Your task to perform on an android device: Turn on the flashlight Image 0: 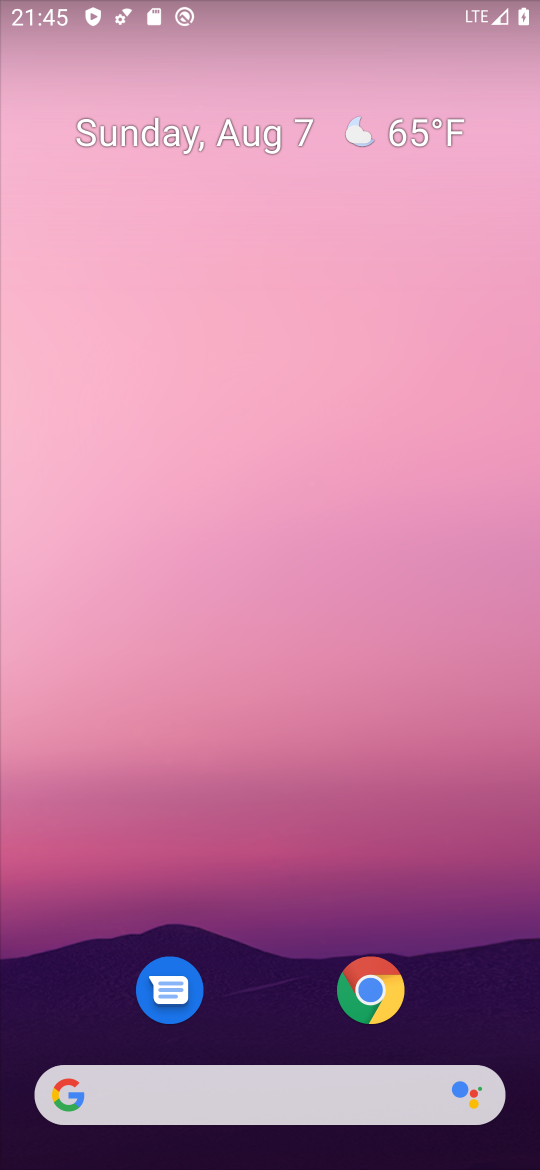
Step 0: press home button
Your task to perform on an android device: Turn on the flashlight Image 1: 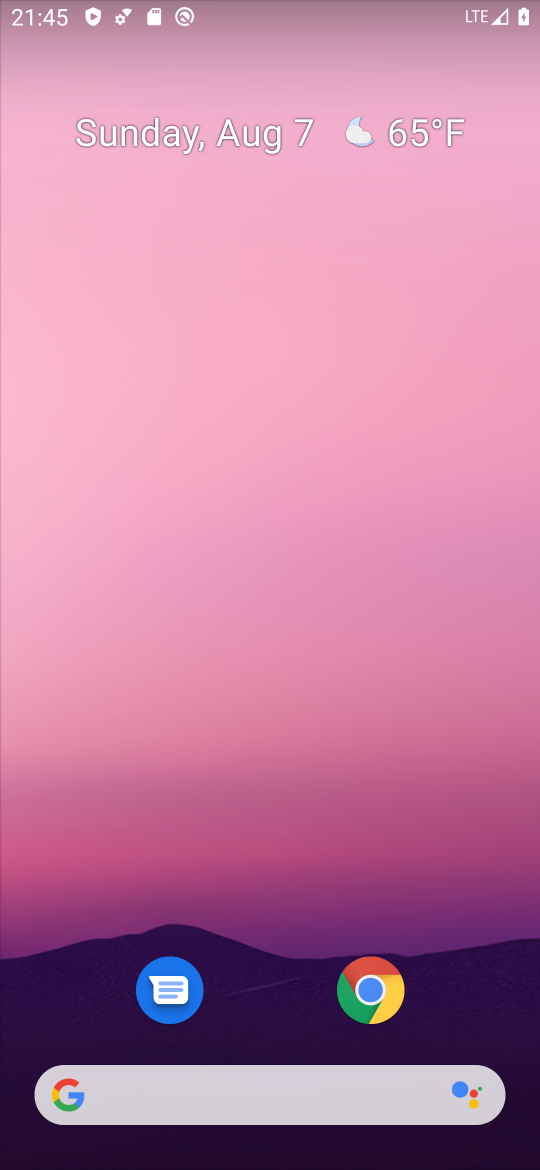
Step 1: drag from (269, 911) to (289, 1)
Your task to perform on an android device: Turn on the flashlight Image 2: 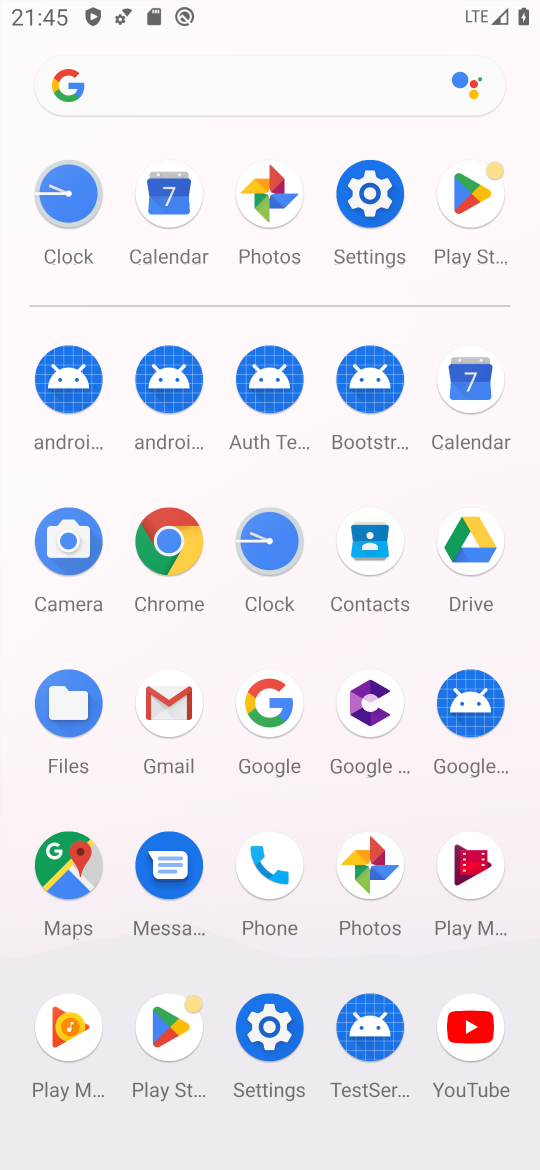
Step 2: click (378, 187)
Your task to perform on an android device: Turn on the flashlight Image 3: 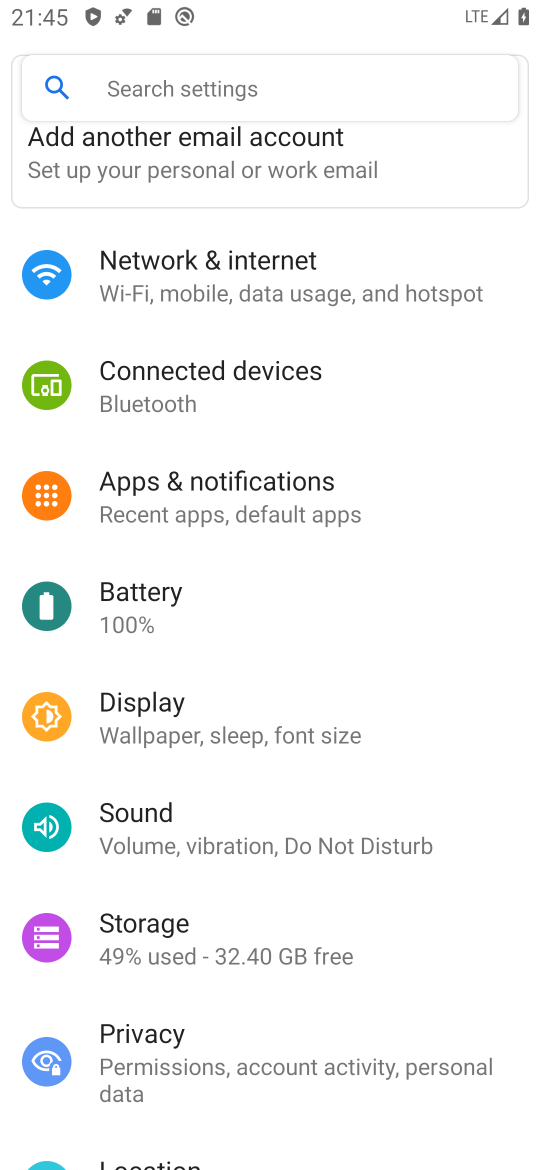
Step 3: click (359, 87)
Your task to perform on an android device: Turn on the flashlight Image 4: 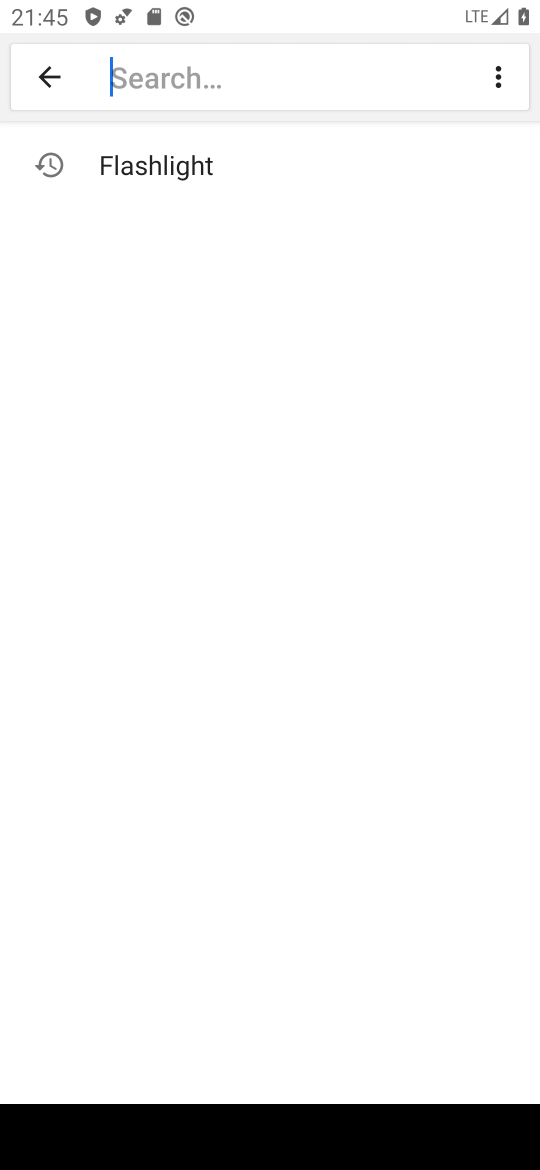
Step 4: type "Flas"
Your task to perform on an android device: Turn on the flashlight Image 5: 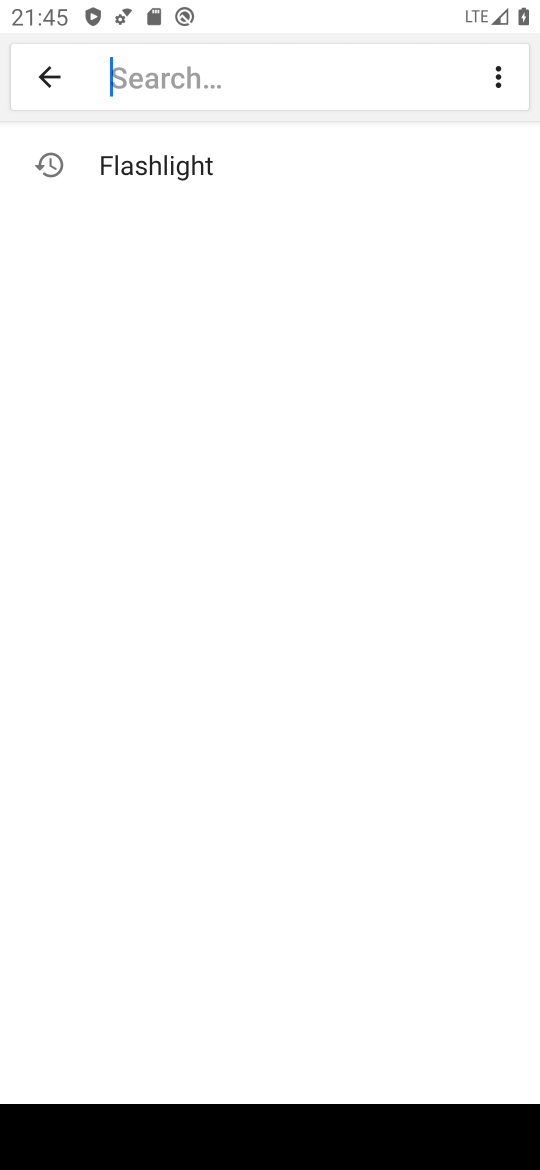
Step 5: click (198, 166)
Your task to perform on an android device: Turn on the flashlight Image 6: 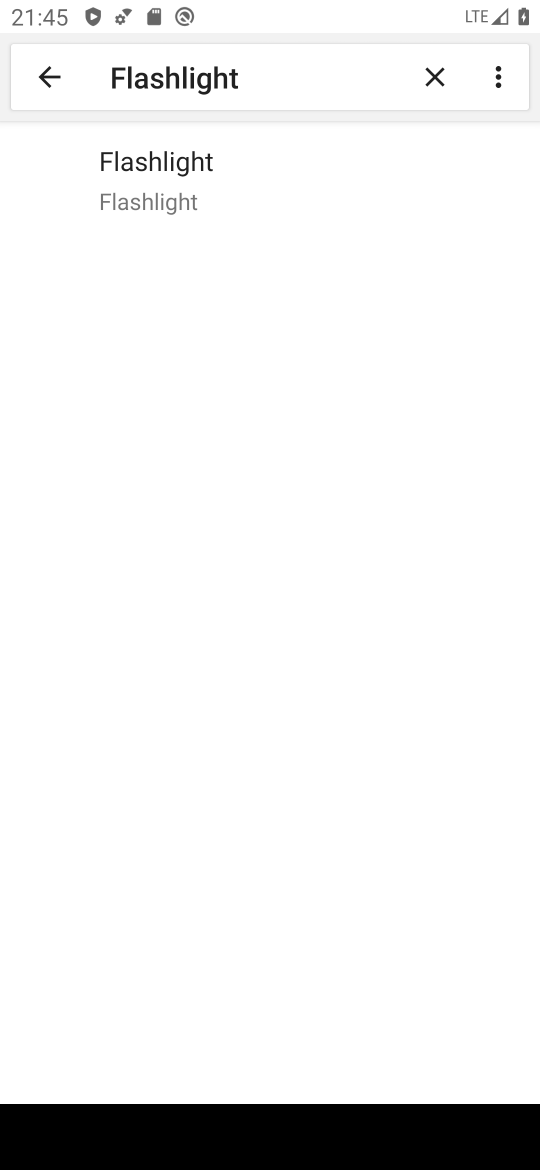
Step 6: click (200, 168)
Your task to perform on an android device: Turn on the flashlight Image 7: 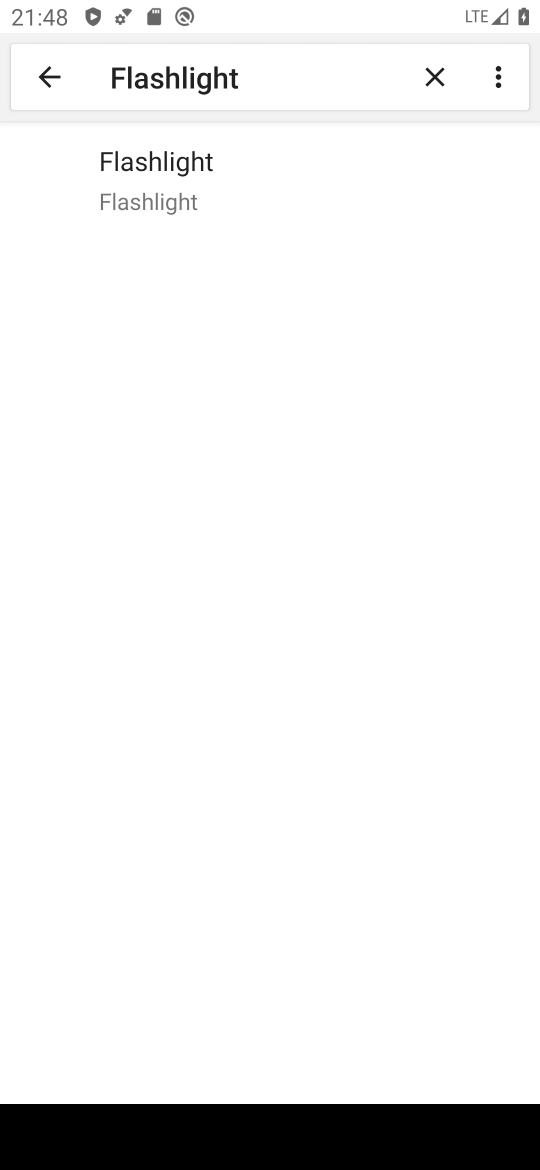
Step 7: task complete